Your task to perform on an android device: Is it going to rain today? Image 0: 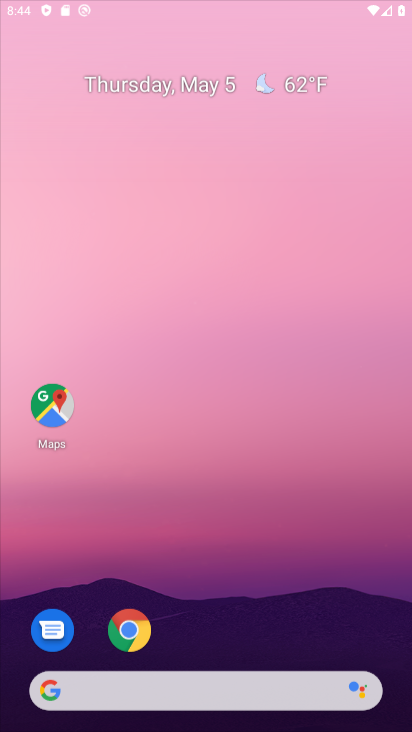
Step 0: drag from (215, 620) to (264, 1)
Your task to perform on an android device: Is it going to rain today? Image 1: 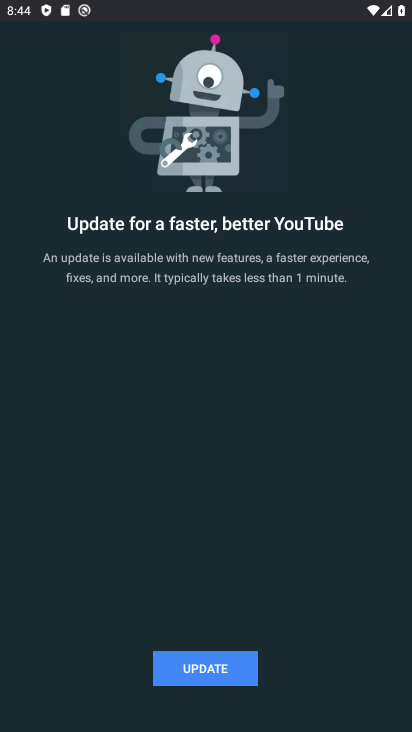
Step 1: press home button
Your task to perform on an android device: Is it going to rain today? Image 2: 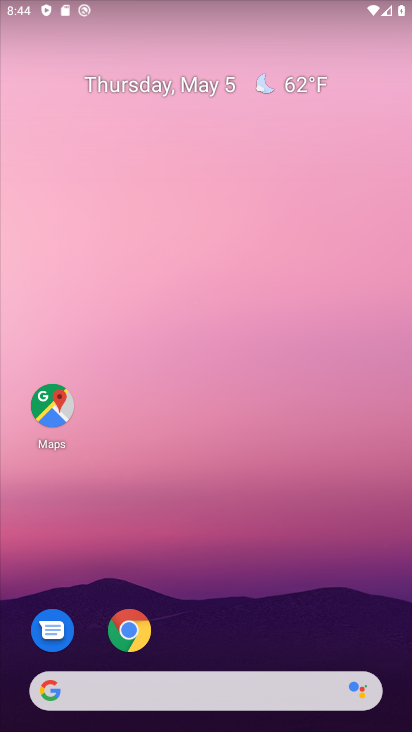
Step 2: drag from (7, 281) to (410, 280)
Your task to perform on an android device: Is it going to rain today? Image 3: 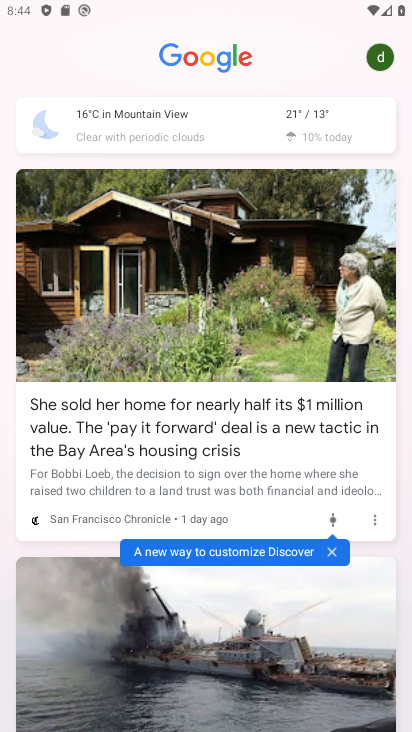
Step 3: click (303, 116)
Your task to perform on an android device: Is it going to rain today? Image 4: 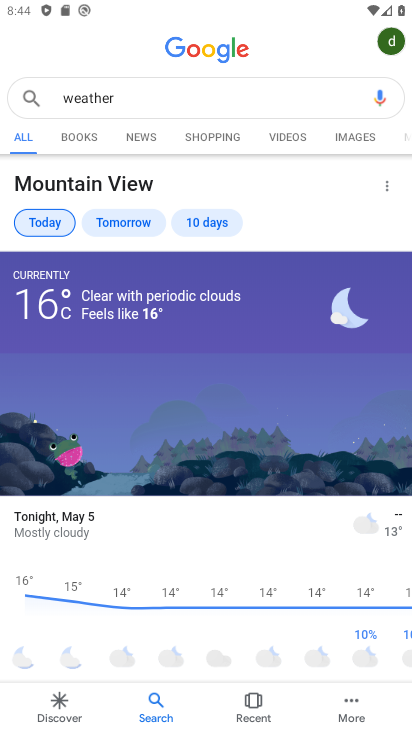
Step 4: task complete